Your task to perform on an android device: Go to sound settings Image 0: 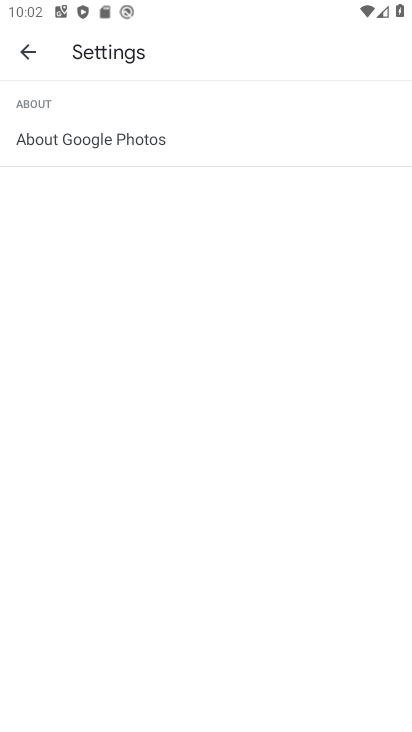
Step 0: press home button
Your task to perform on an android device: Go to sound settings Image 1: 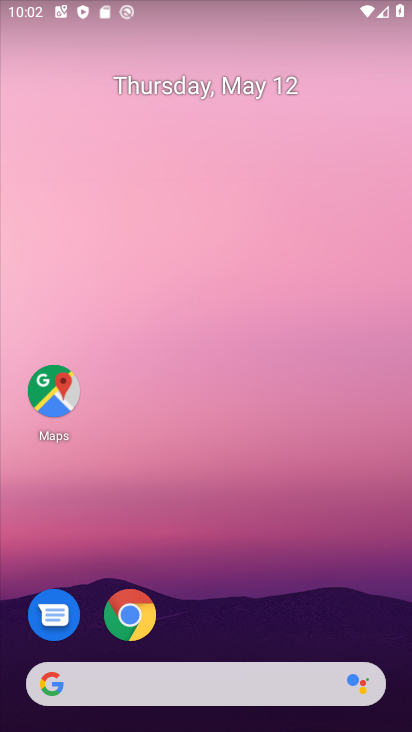
Step 1: drag from (211, 725) to (227, 64)
Your task to perform on an android device: Go to sound settings Image 2: 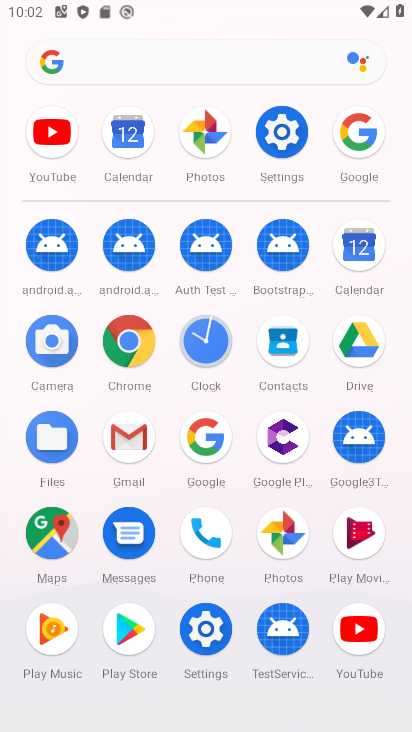
Step 2: click (278, 128)
Your task to perform on an android device: Go to sound settings Image 3: 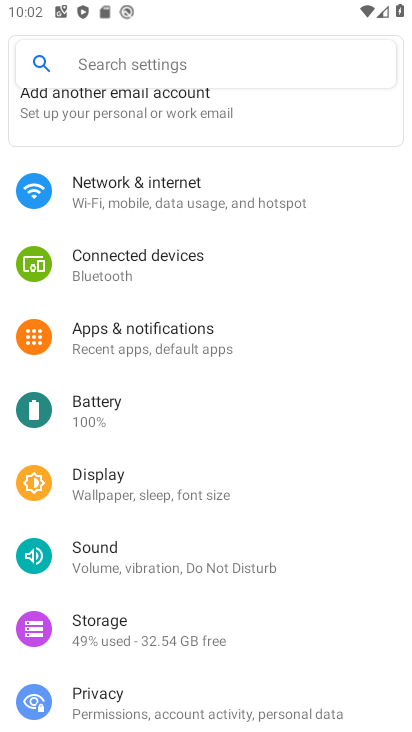
Step 3: click (116, 556)
Your task to perform on an android device: Go to sound settings Image 4: 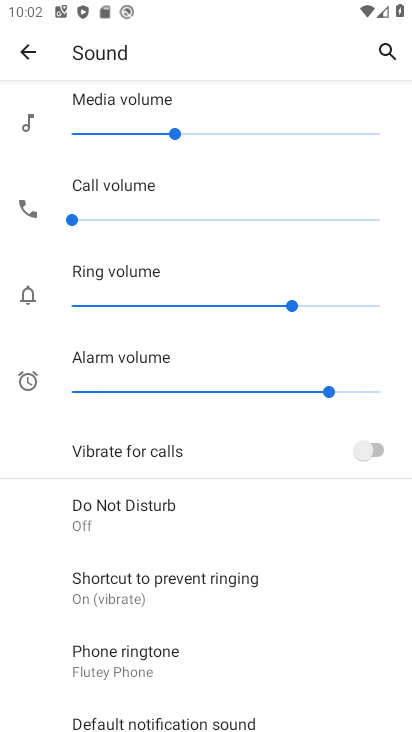
Step 4: task complete